Your task to perform on an android device: Open internet settings Image 0: 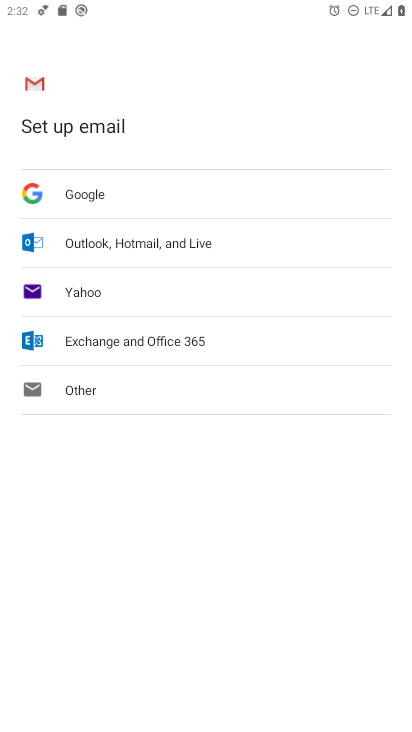
Step 0: press home button
Your task to perform on an android device: Open internet settings Image 1: 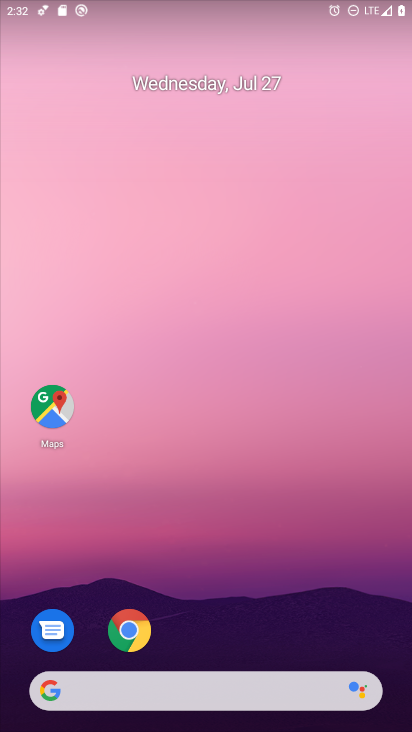
Step 1: drag from (388, 628) to (354, 117)
Your task to perform on an android device: Open internet settings Image 2: 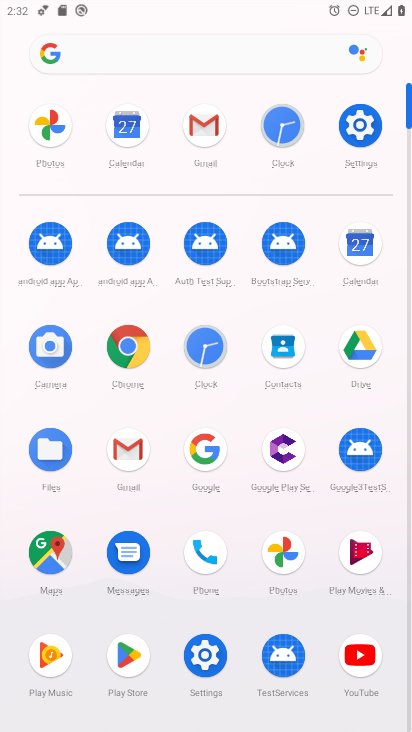
Step 2: click (203, 654)
Your task to perform on an android device: Open internet settings Image 3: 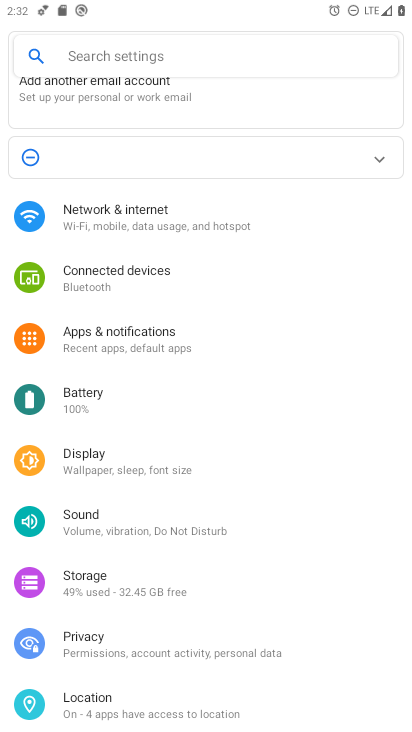
Step 3: click (109, 215)
Your task to perform on an android device: Open internet settings Image 4: 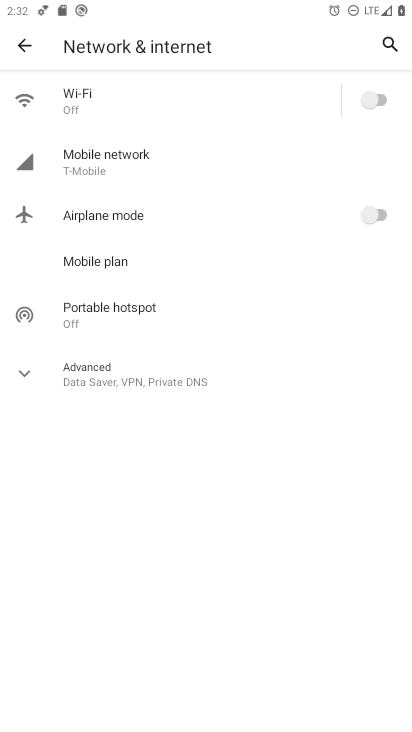
Step 4: click (78, 89)
Your task to perform on an android device: Open internet settings Image 5: 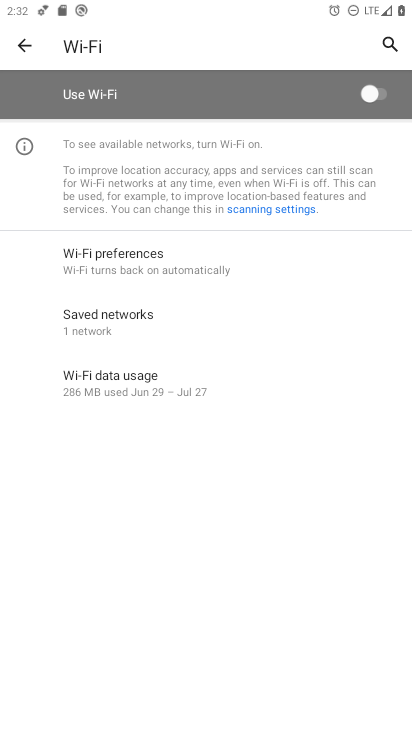
Step 5: task complete